Your task to perform on an android device: open app "Grab" (install if not already installed) Image 0: 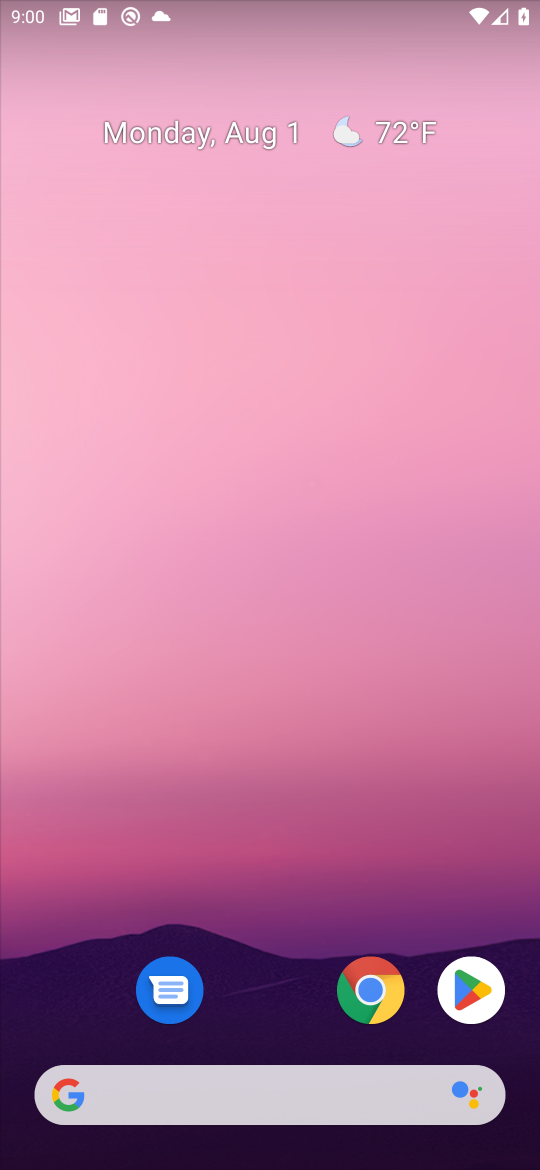
Step 0: click (484, 979)
Your task to perform on an android device: open app "Grab" (install if not already installed) Image 1: 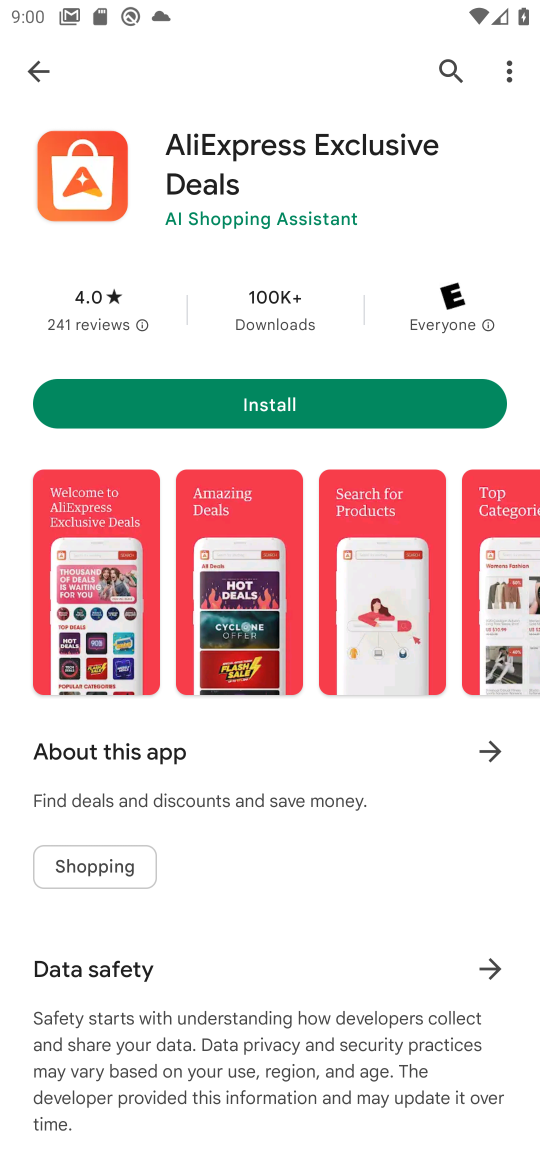
Step 1: click (437, 66)
Your task to perform on an android device: open app "Grab" (install if not already installed) Image 2: 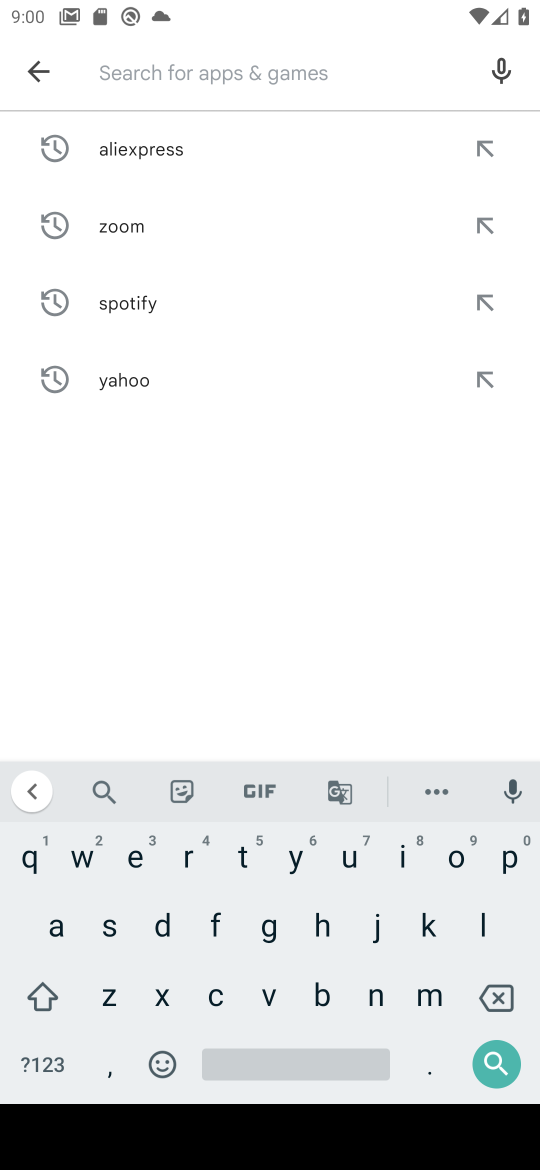
Step 2: click (266, 918)
Your task to perform on an android device: open app "Grab" (install if not already installed) Image 3: 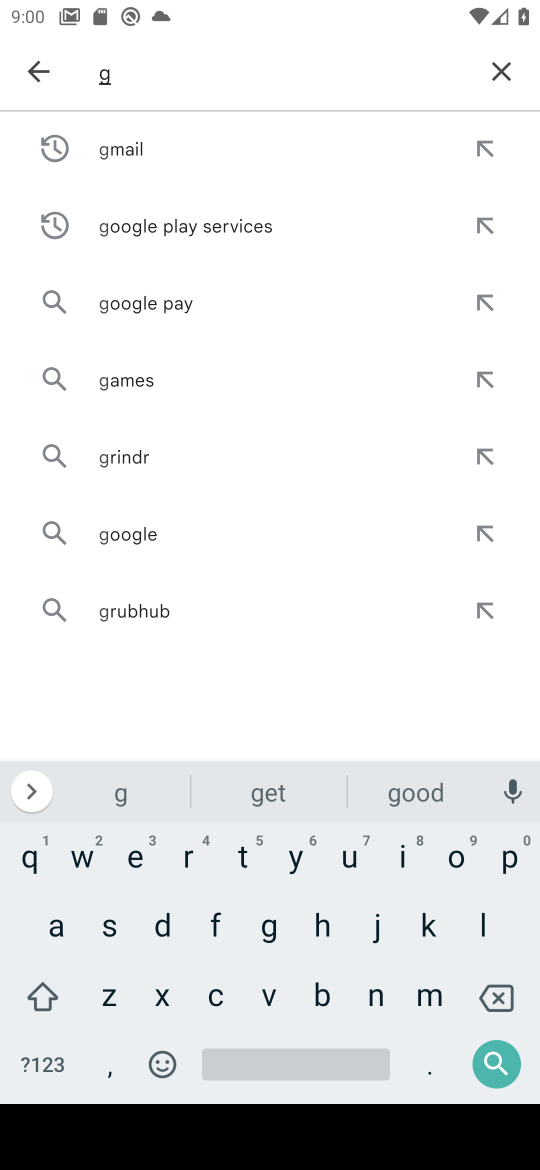
Step 3: click (184, 856)
Your task to perform on an android device: open app "Grab" (install if not already installed) Image 4: 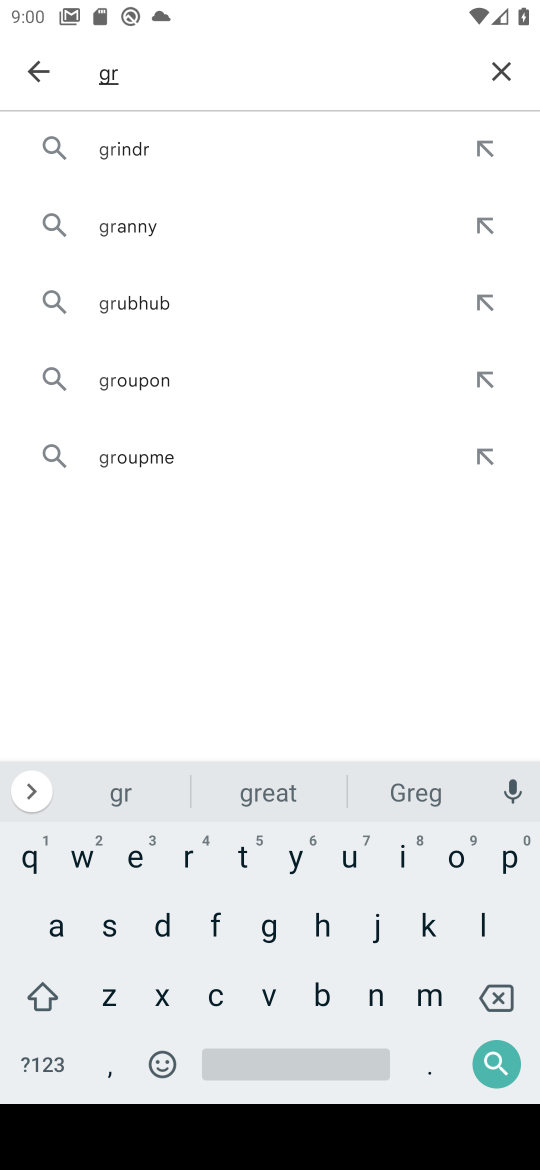
Step 4: click (44, 931)
Your task to perform on an android device: open app "Grab" (install if not already installed) Image 5: 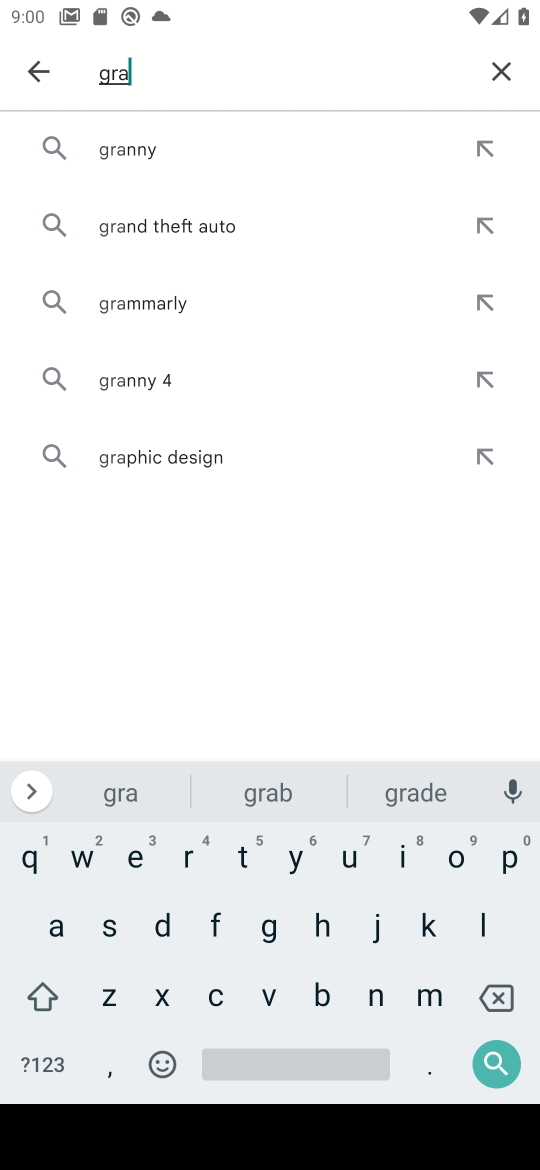
Step 5: click (314, 999)
Your task to perform on an android device: open app "Grab" (install if not already installed) Image 6: 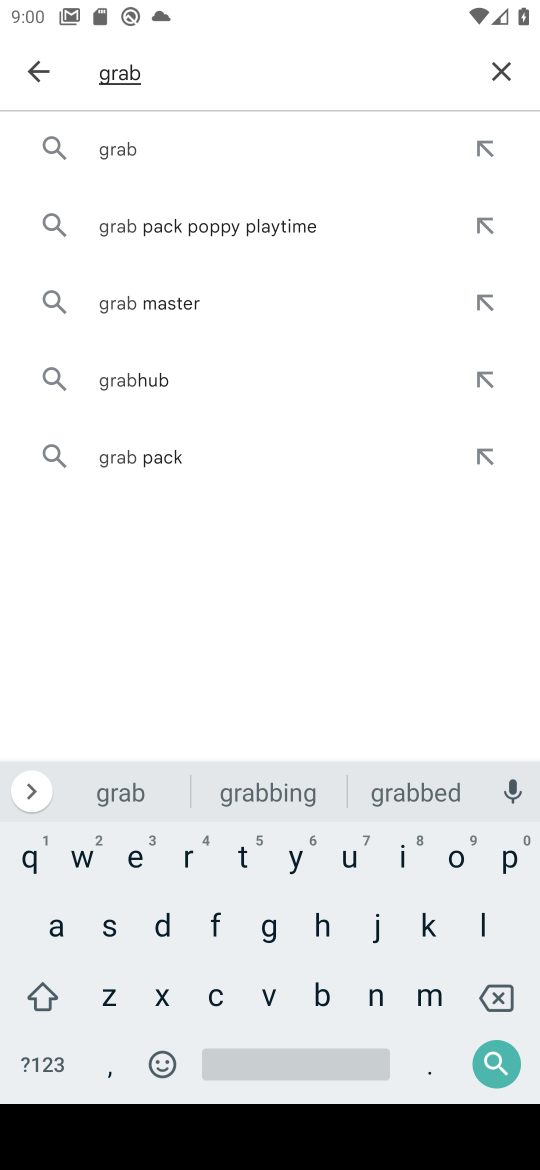
Step 6: click (494, 1058)
Your task to perform on an android device: open app "Grab" (install if not already installed) Image 7: 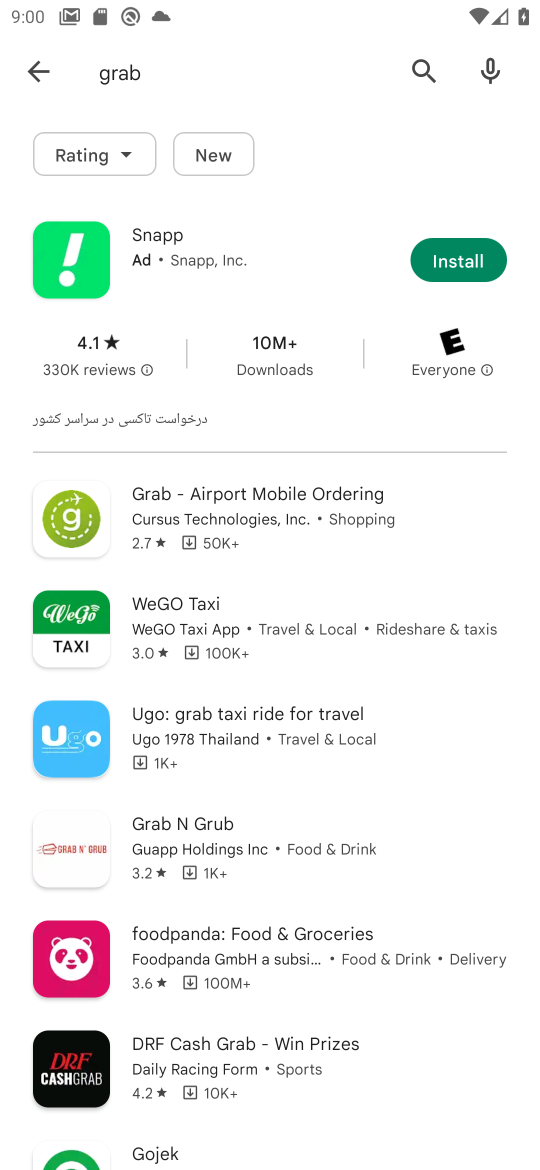
Step 7: click (462, 265)
Your task to perform on an android device: open app "Grab" (install if not already installed) Image 8: 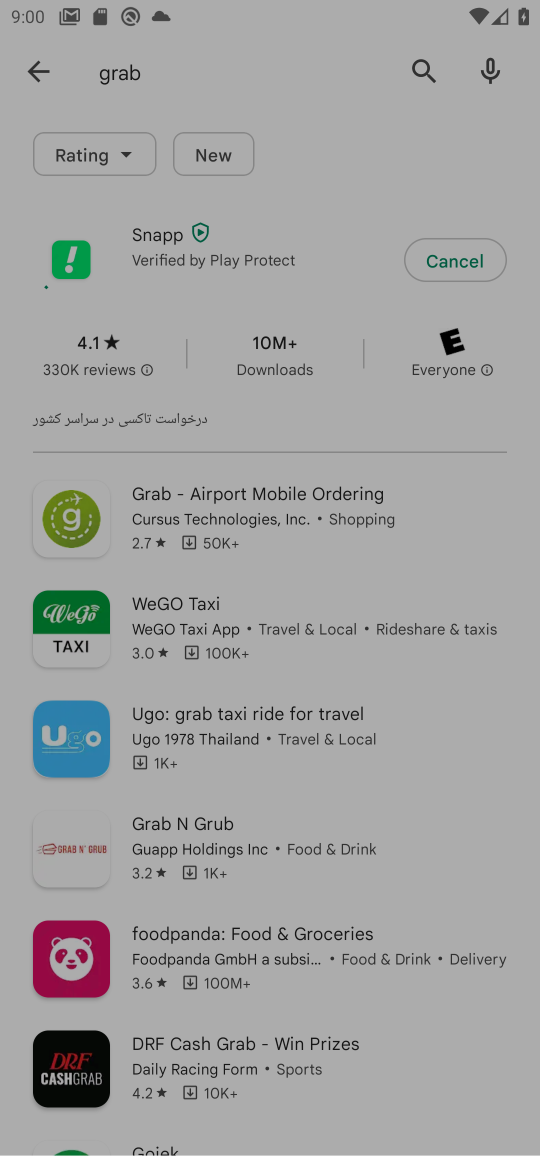
Step 8: click (452, 254)
Your task to perform on an android device: open app "Grab" (install if not already installed) Image 9: 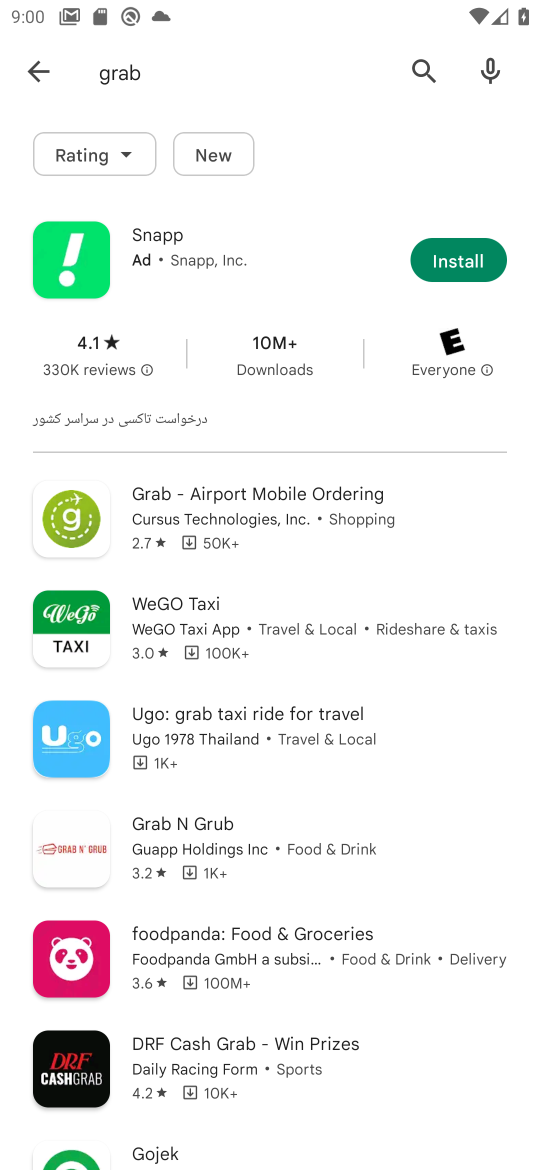
Step 9: click (274, 511)
Your task to perform on an android device: open app "Grab" (install if not already installed) Image 10: 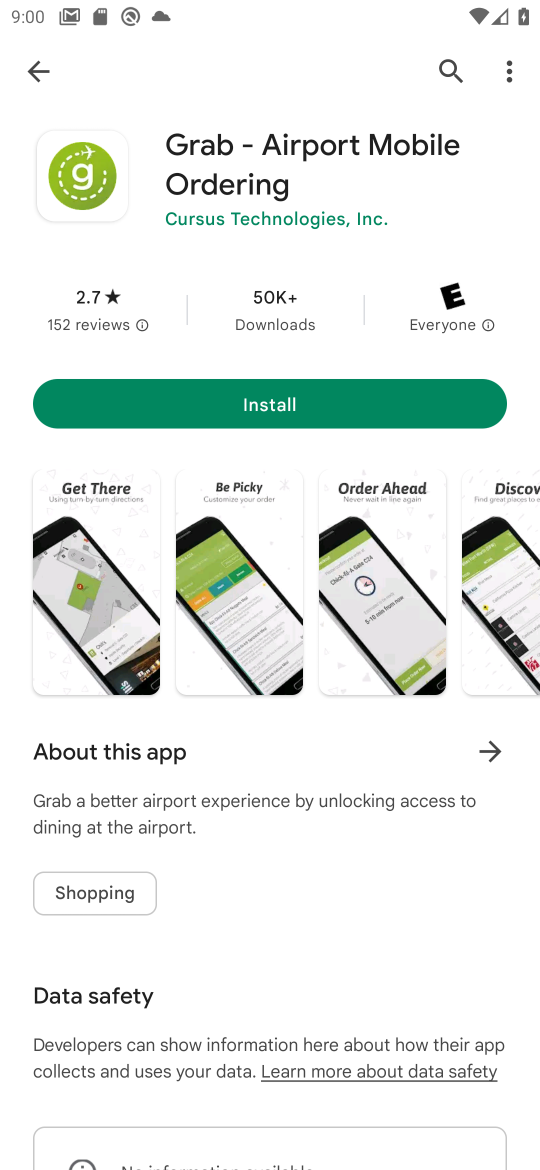
Step 10: click (226, 422)
Your task to perform on an android device: open app "Grab" (install if not already installed) Image 11: 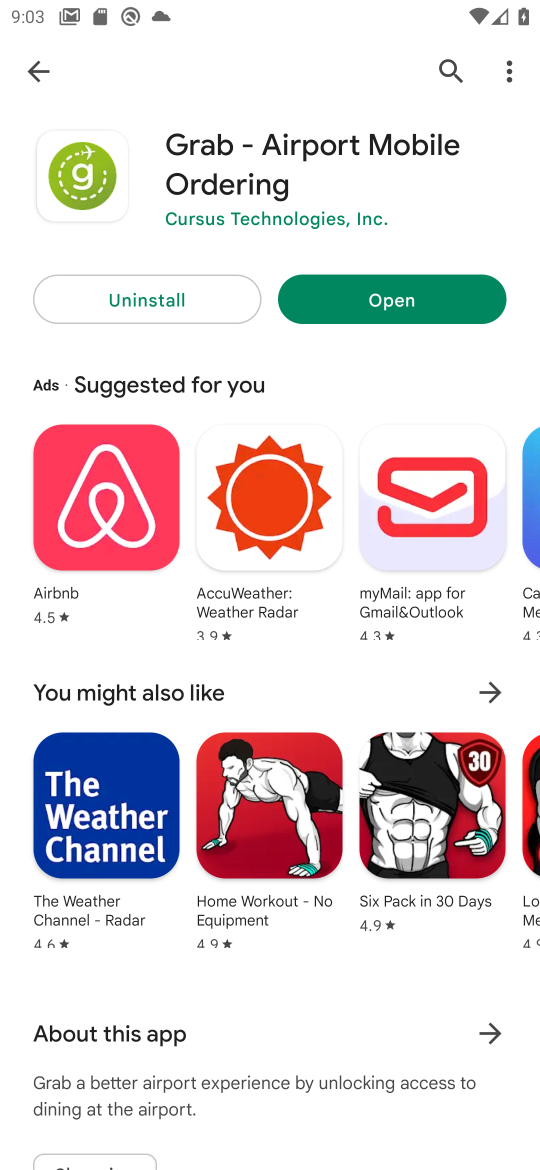
Step 11: click (400, 293)
Your task to perform on an android device: open app "Grab" (install if not already installed) Image 12: 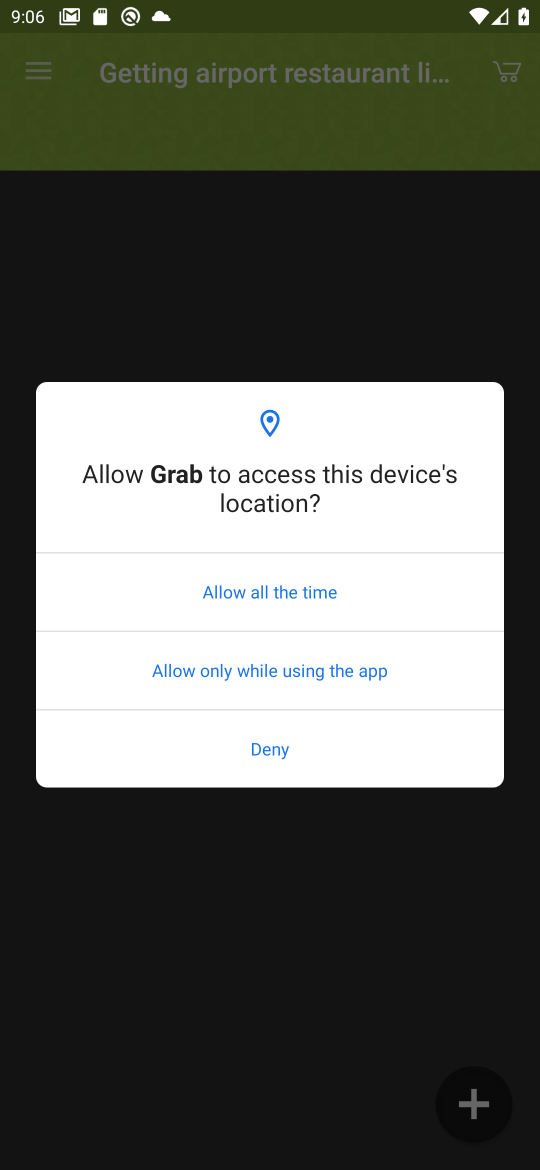
Step 12: task complete